Your task to perform on an android device: add a contact in the contacts app Image 0: 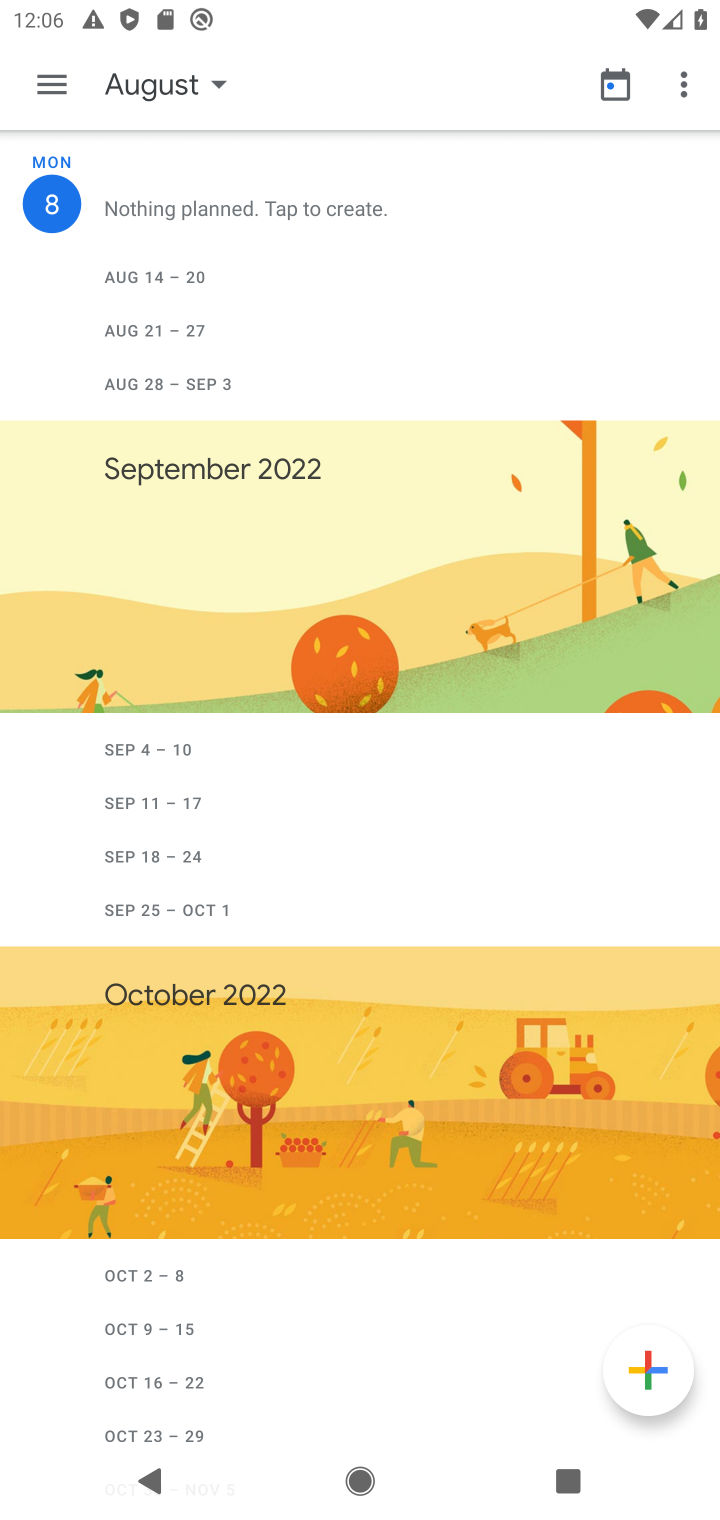
Step 0: press home button
Your task to perform on an android device: add a contact in the contacts app Image 1: 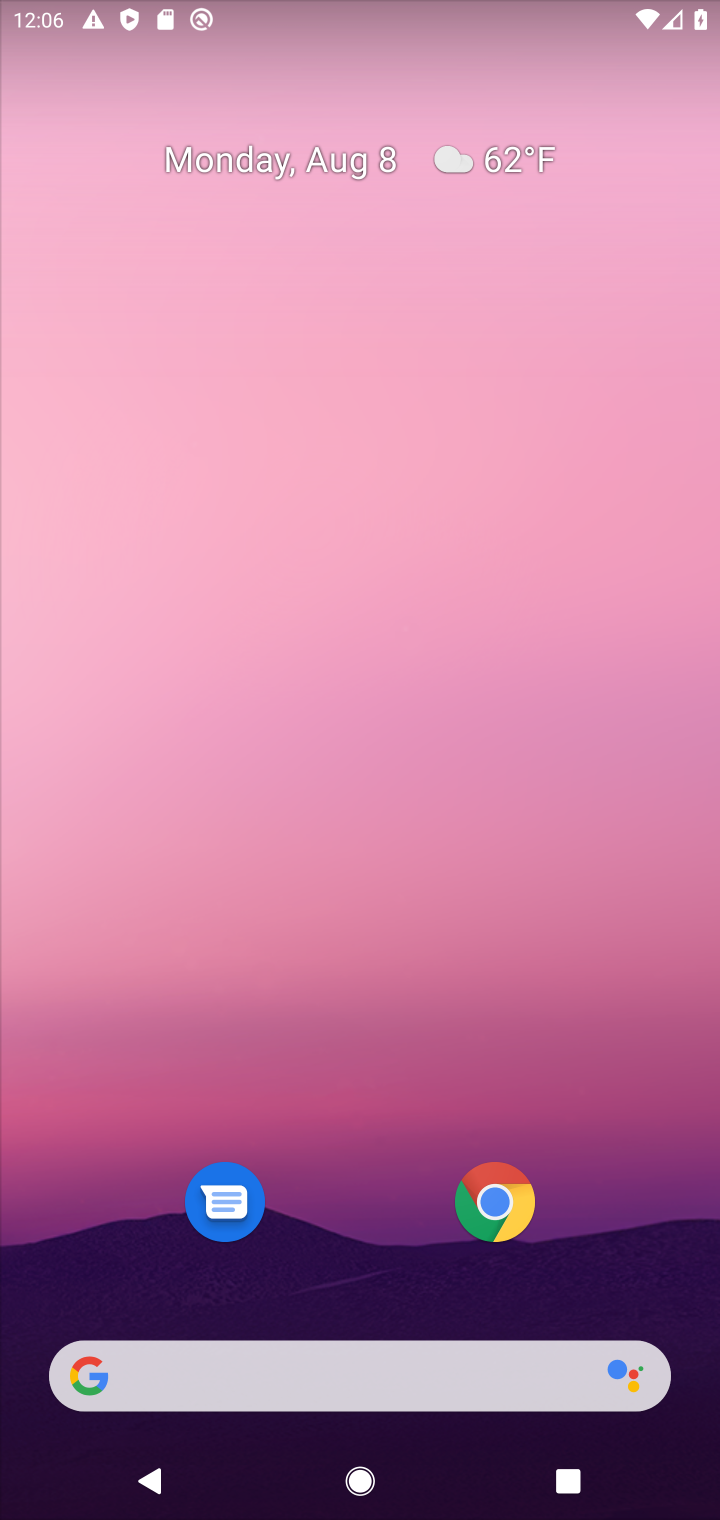
Step 1: click (354, 373)
Your task to perform on an android device: add a contact in the contacts app Image 2: 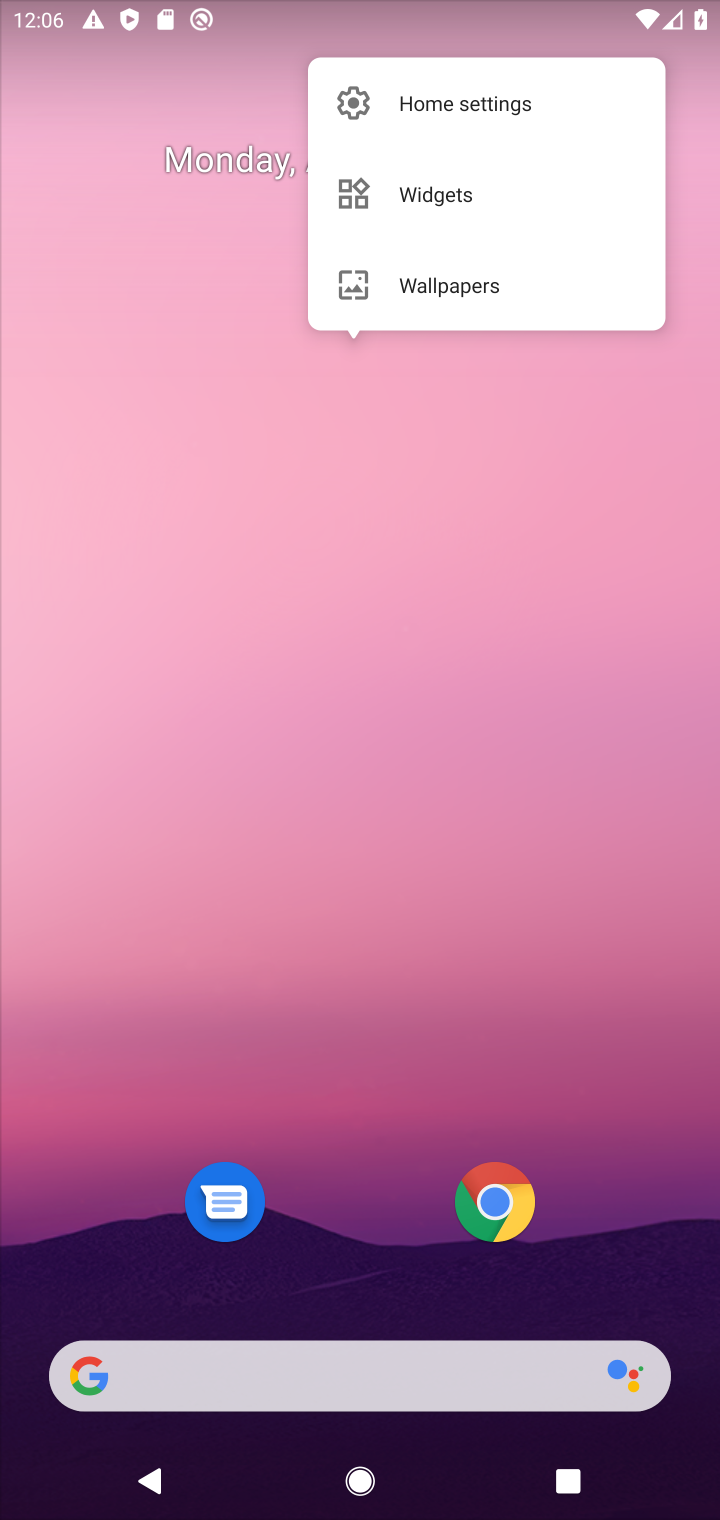
Step 2: click (393, 1305)
Your task to perform on an android device: add a contact in the contacts app Image 3: 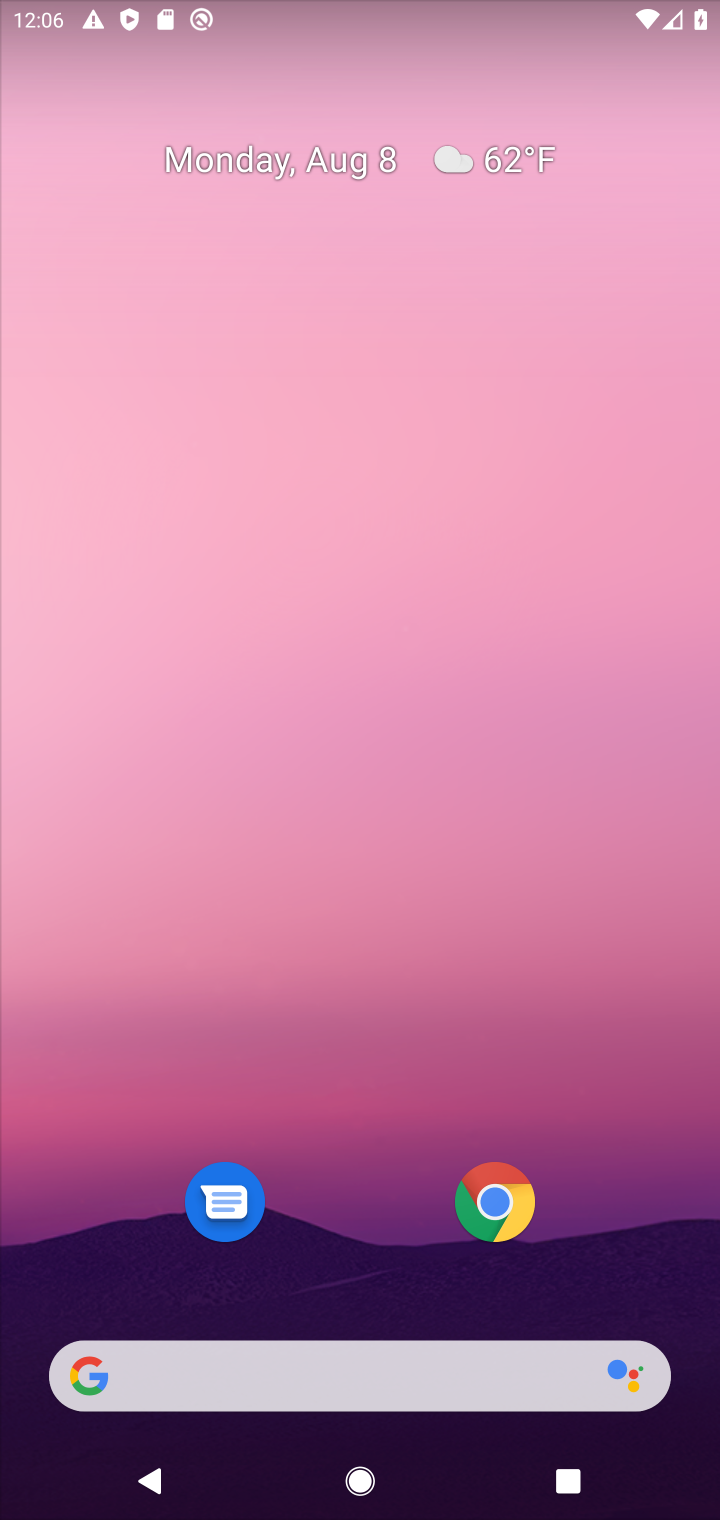
Step 3: drag from (381, 1235) to (344, 815)
Your task to perform on an android device: add a contact in the contacts app Image 4: 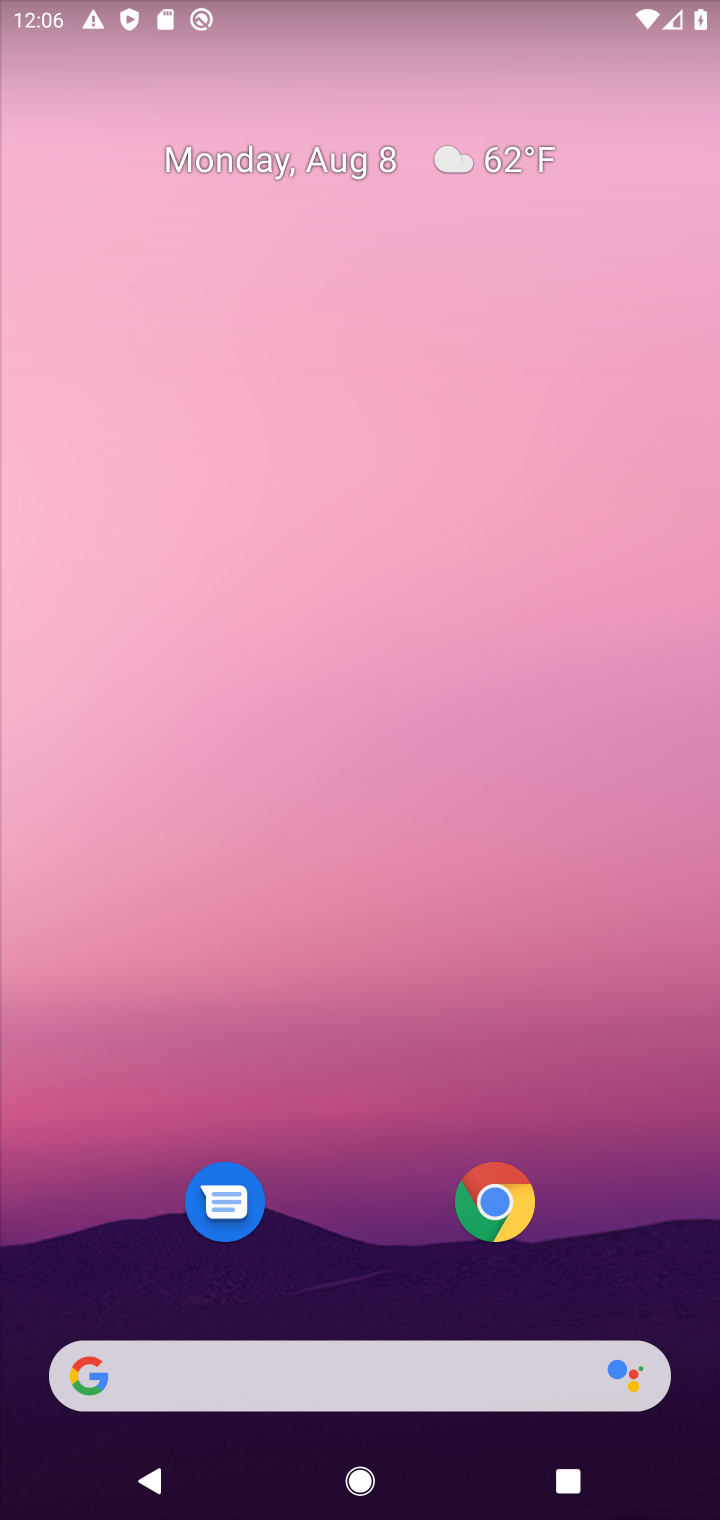
Step 4: drag from (312, 373) to (217, 144)
Your task to perform on an android device: add a contact in the contacts app Image 5: 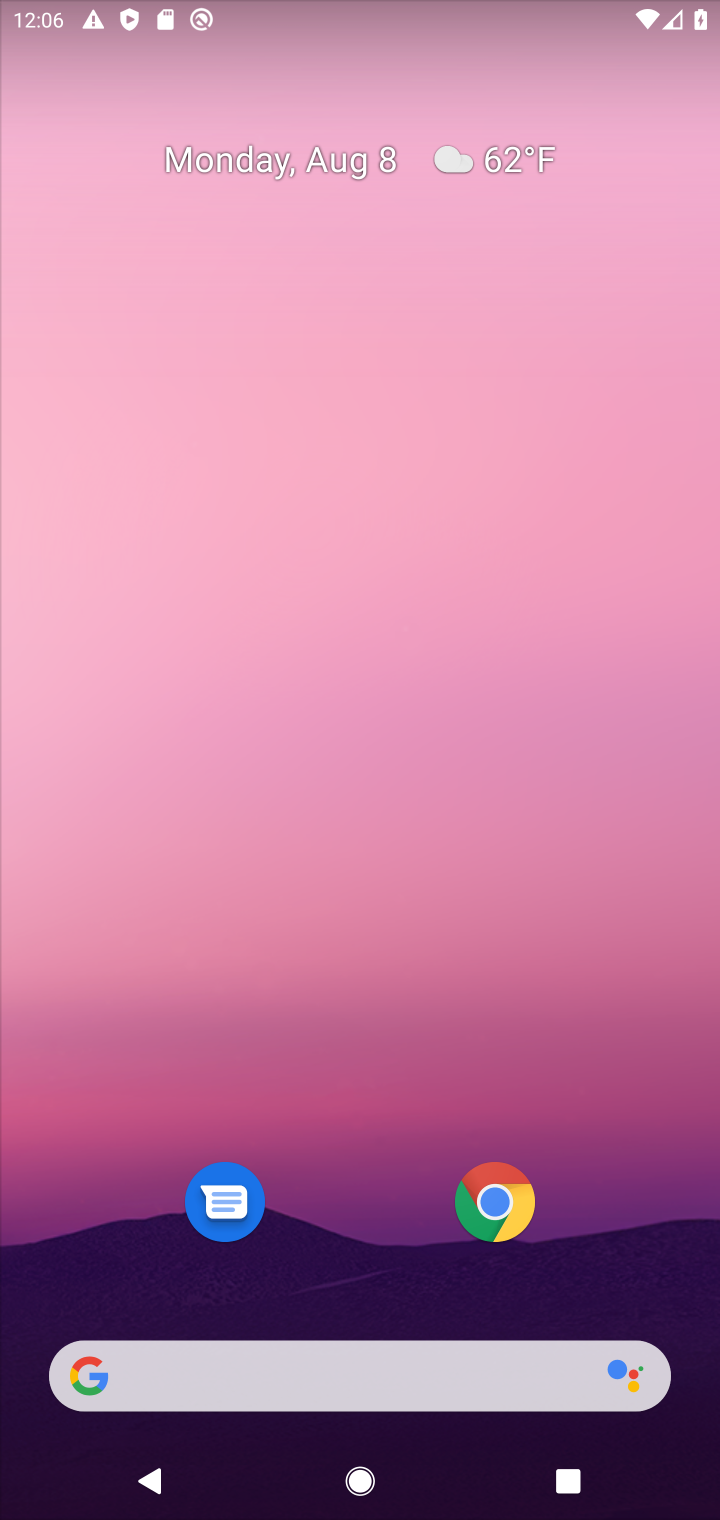
Step 5: drag from (327, 1048) to (126, 98)
Your task to perform on an android device: add a contact in the contacts app Image 6: 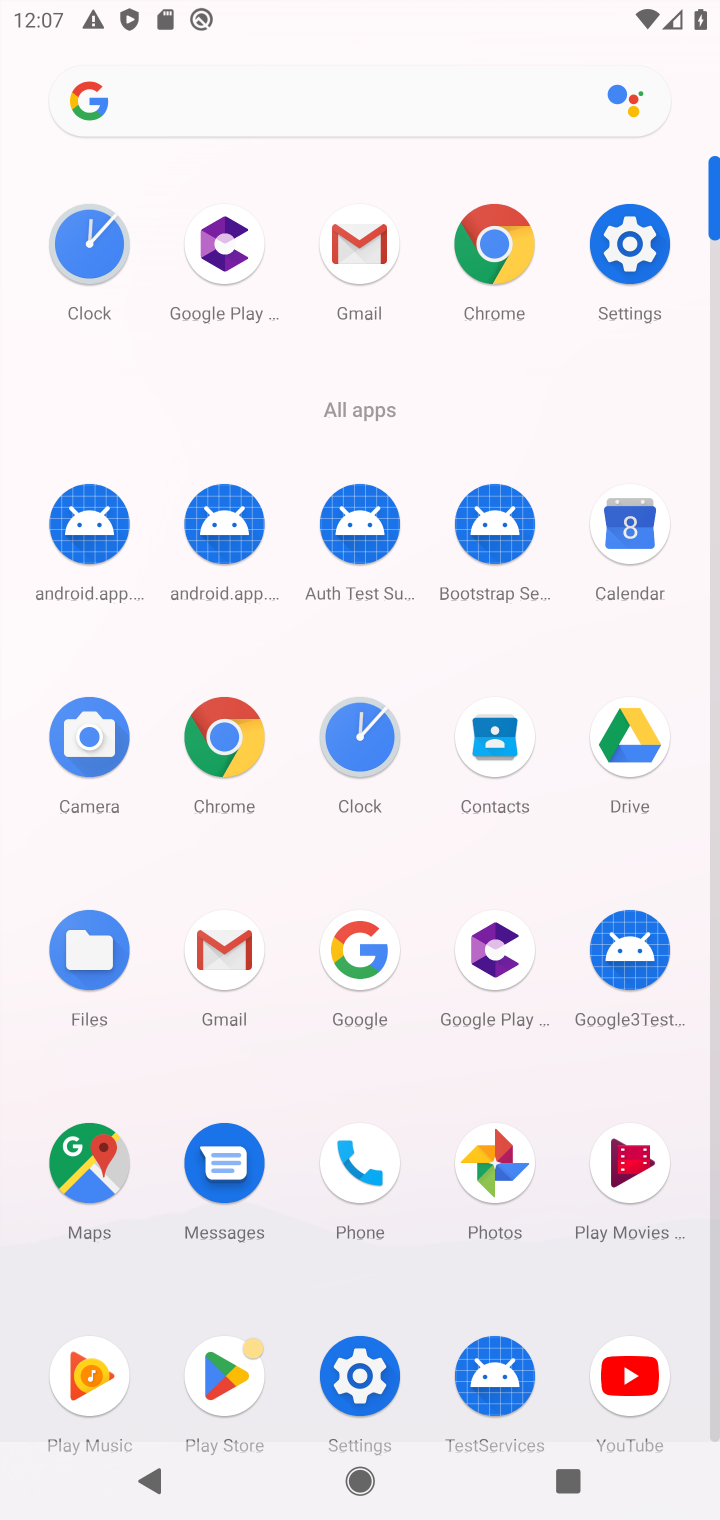
Step 6: click (496, 755)
Your task to perform on an android device: add a contact in the contacts app Image 7: 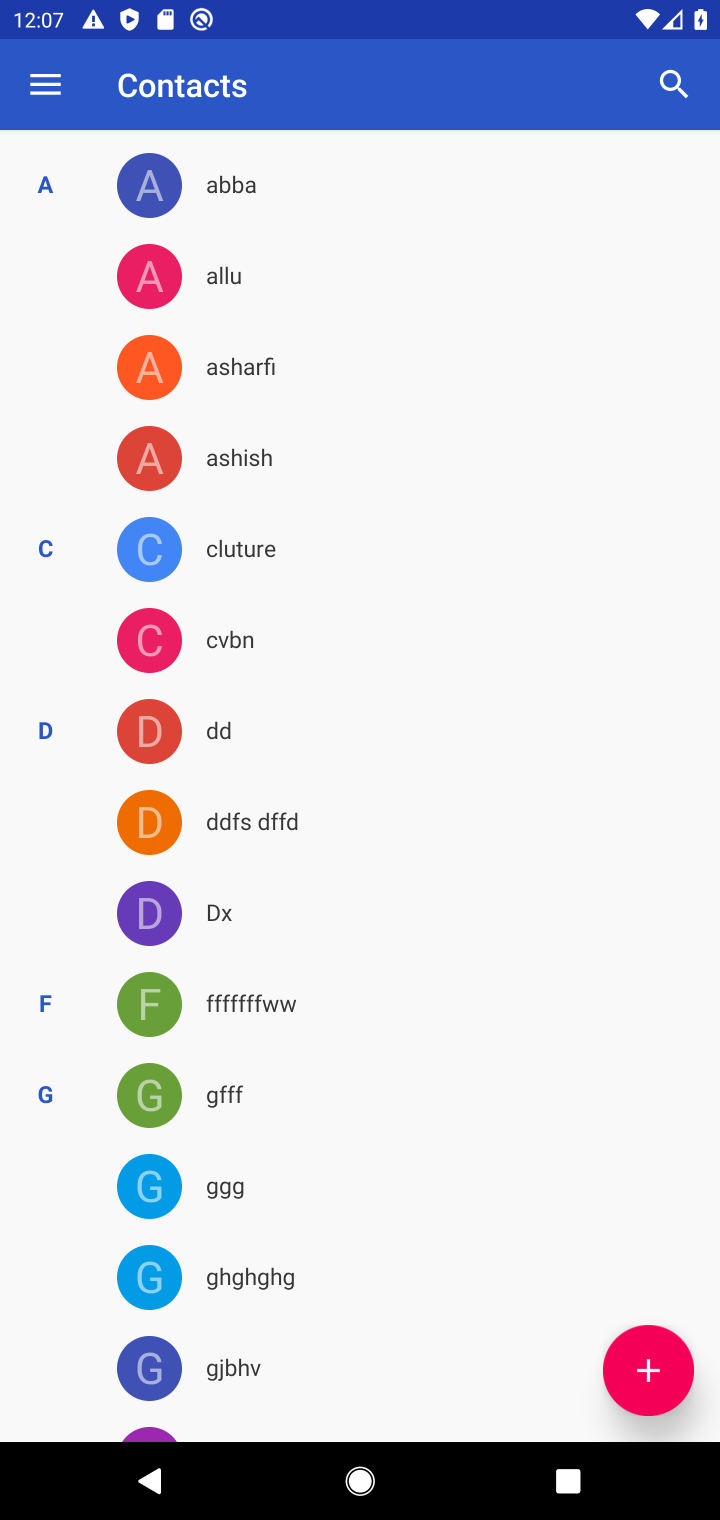
Step 7: click (629, 1377)
Your task to perform on an android device: add a contact in the contacts app Image 8: 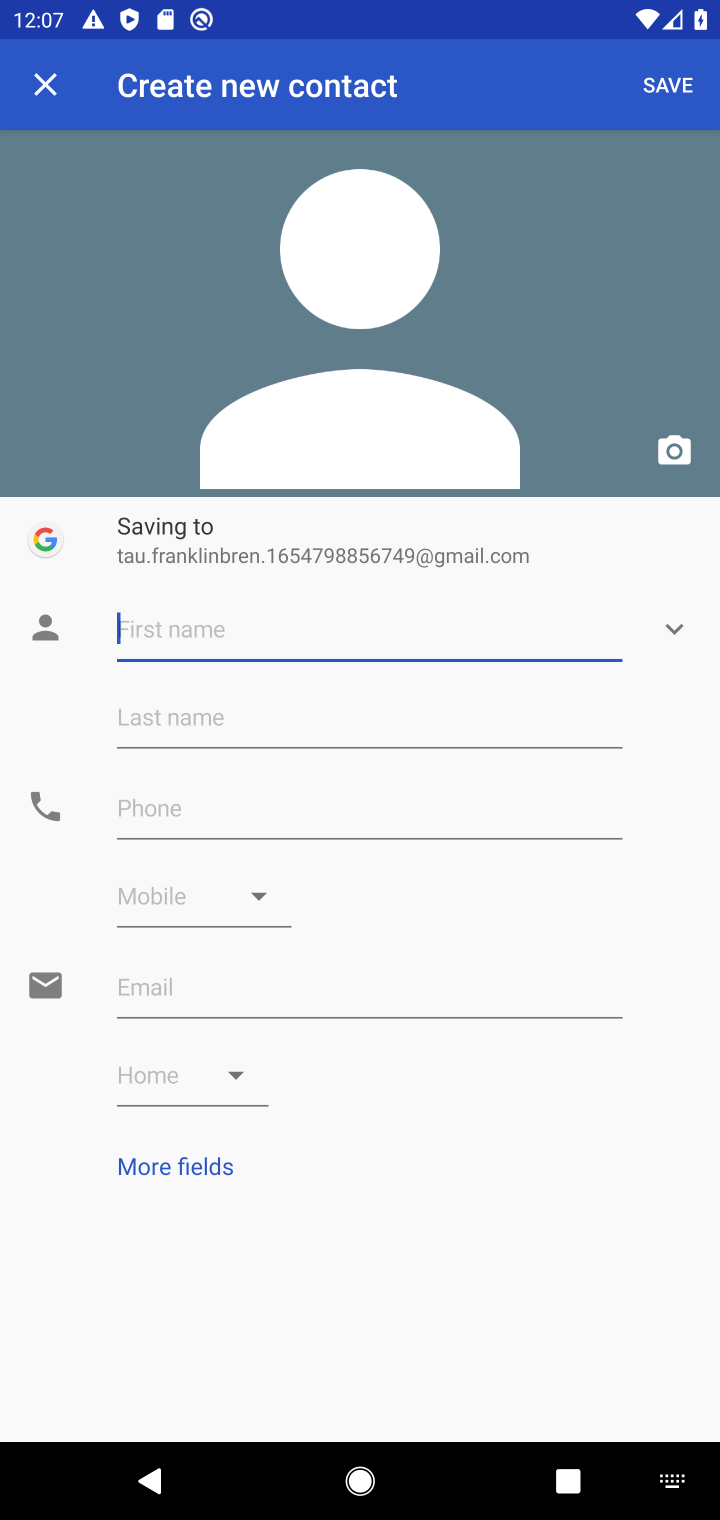
Step 8: type "Vinamra"
Your task to perform on an android device: add a contact in the contacts app Image 9: 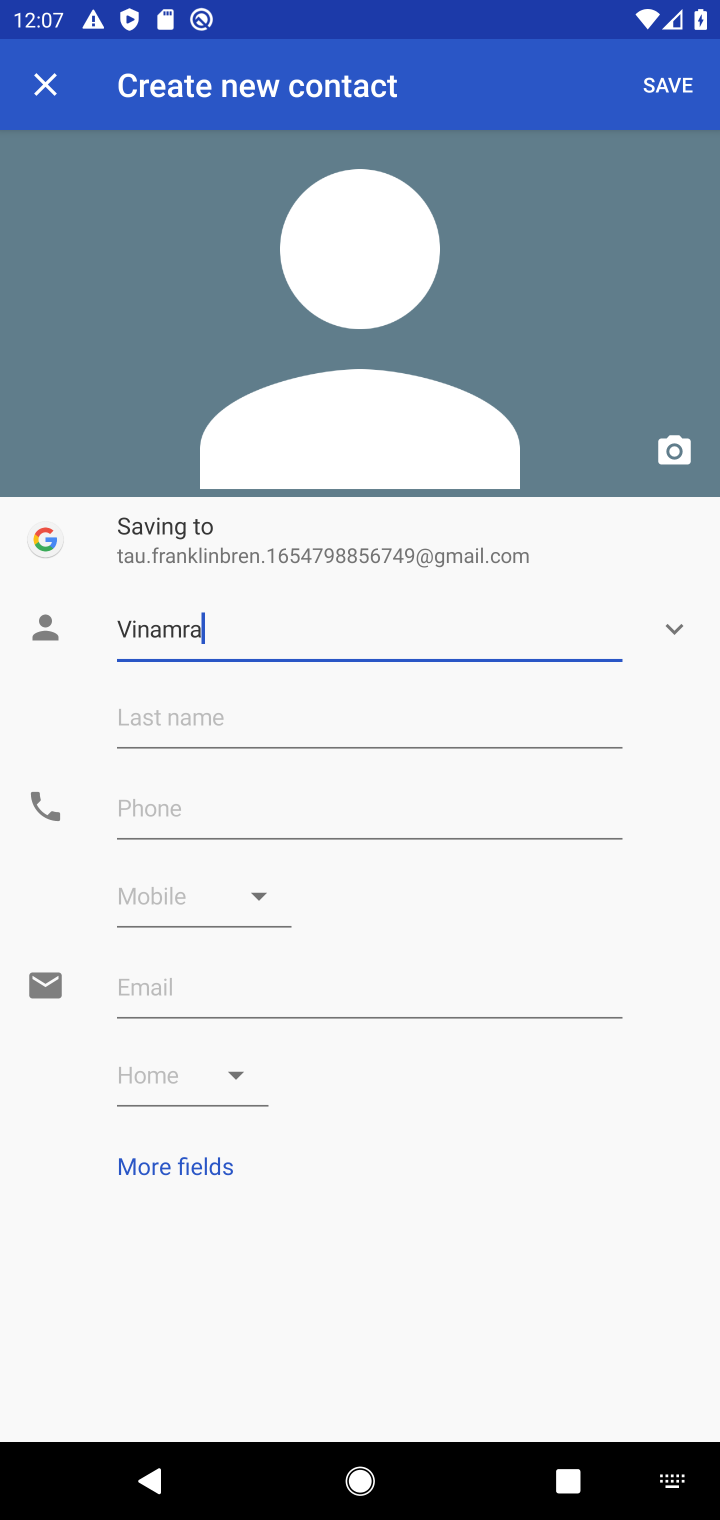
Step 9: click (524, 729)
Your task to perform on an android device: add a contact in the contacts app Image 10: 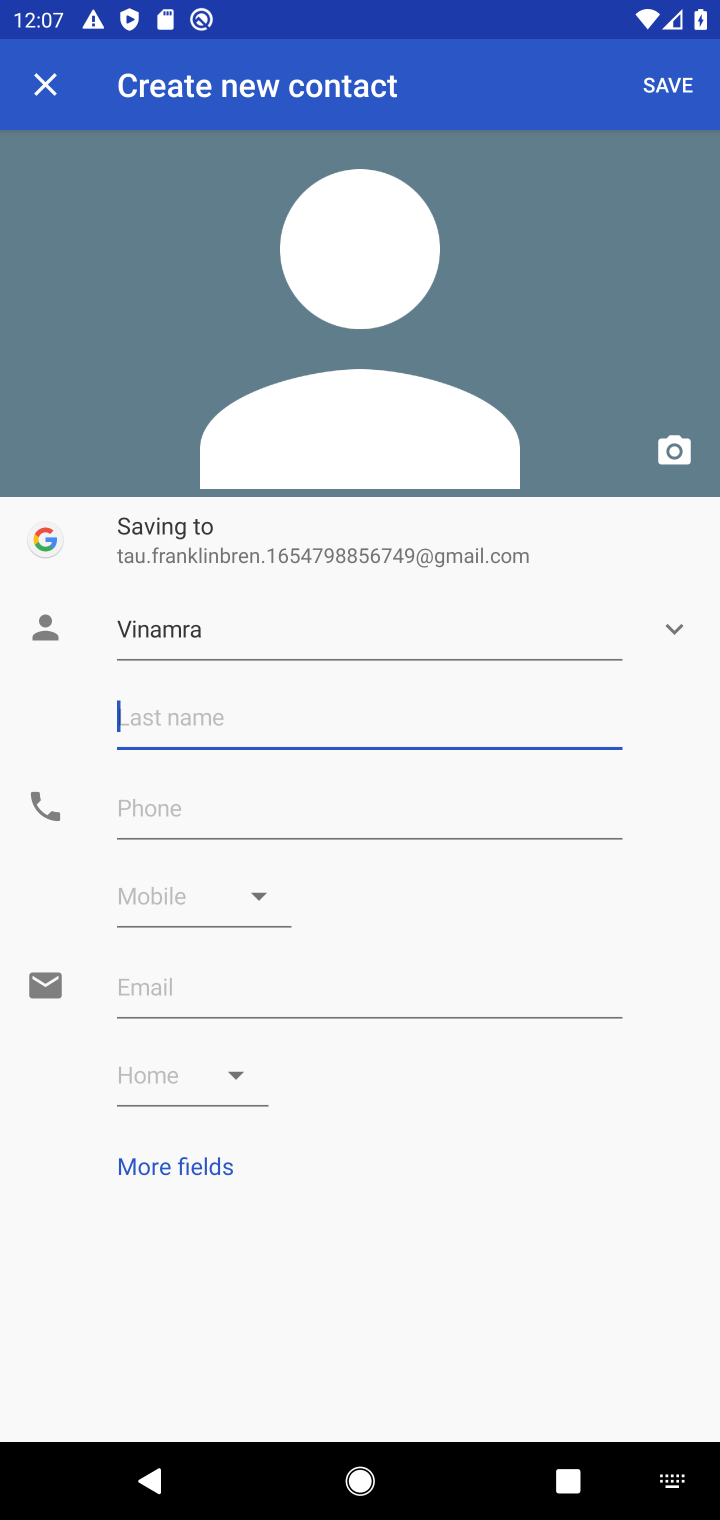
Step 10: type "Dangi"
Your task to perform on an android device: add a contact in the contacts app Image 11: 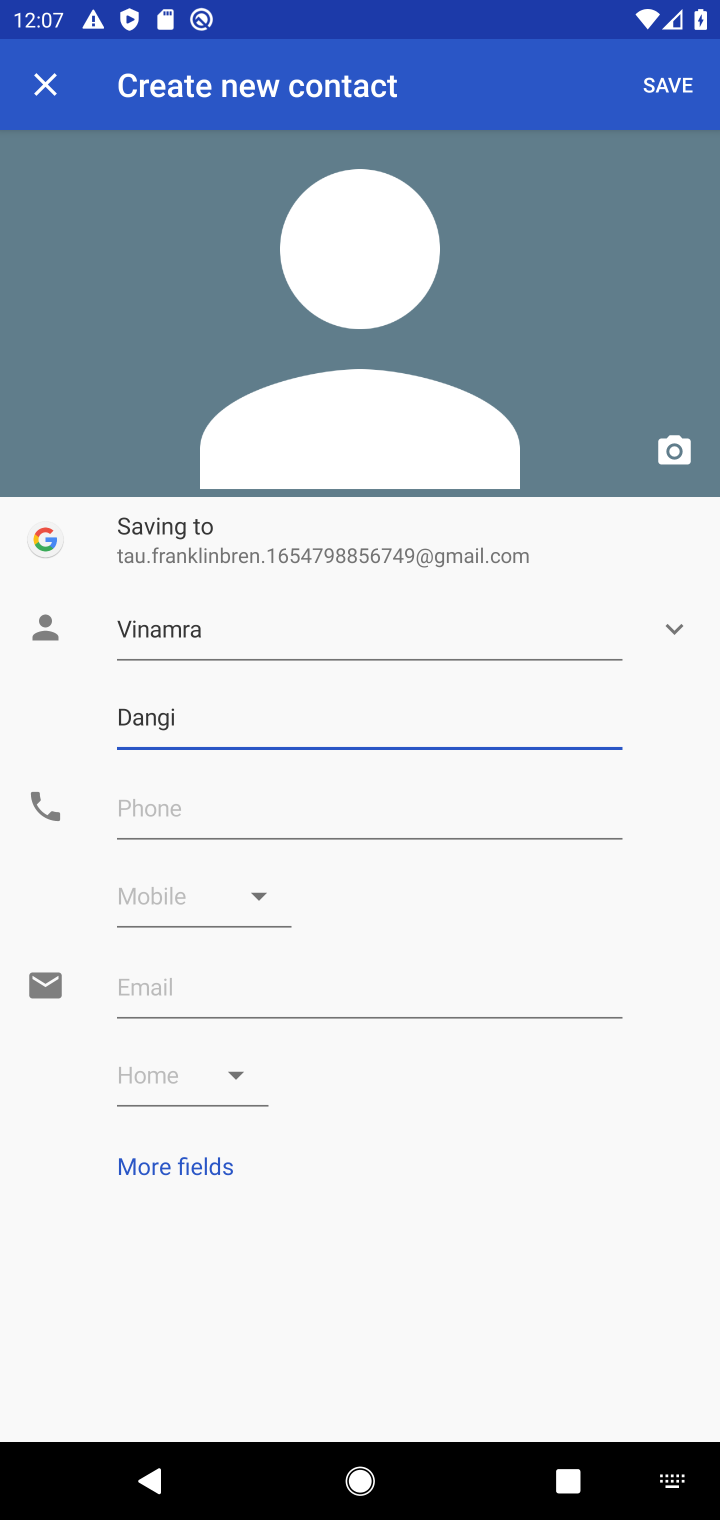
Step 11: click (442, 818)
Your task to perform on an android device: add a contact in the contacts app Image 12: 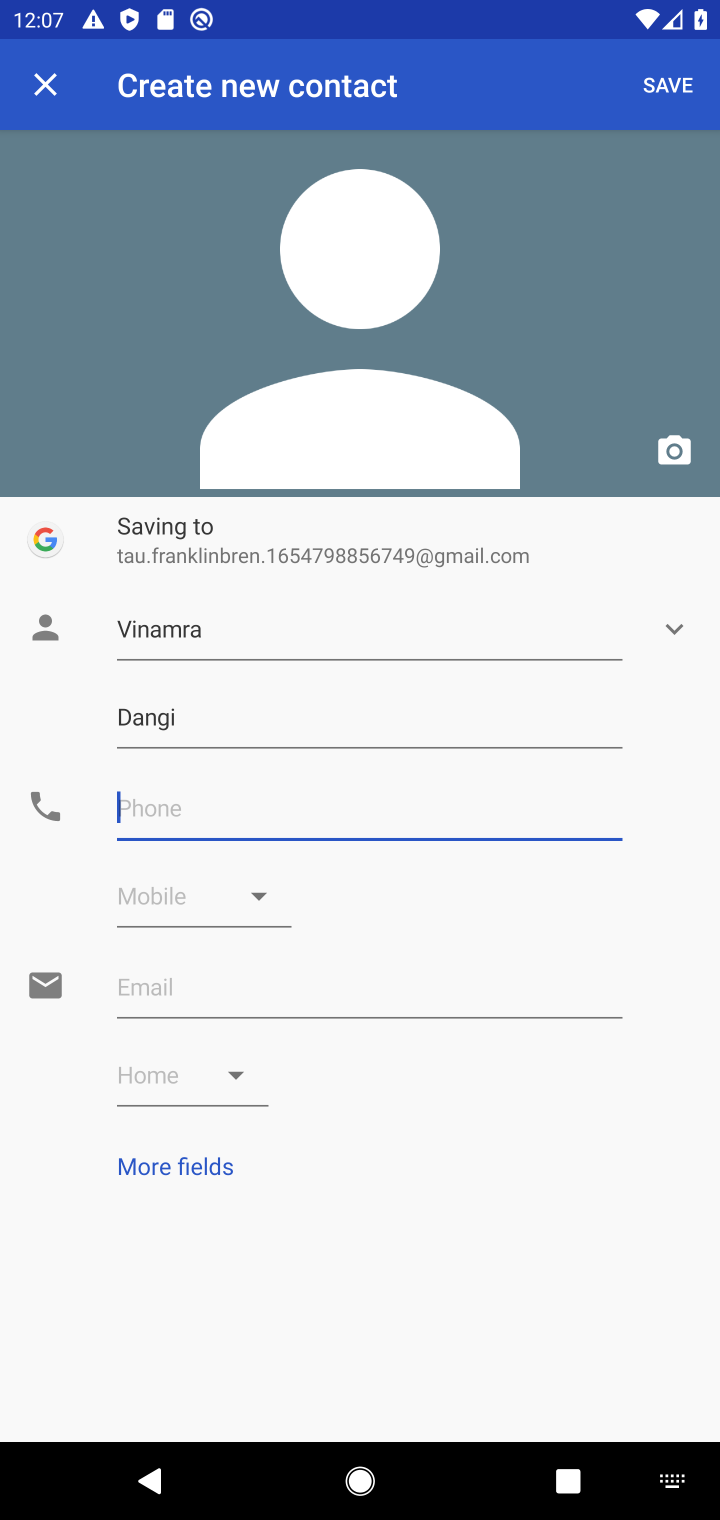
Step 12: type "5678987600"
Your task to perform on an android device: add a contact in the contacts app Image 13: 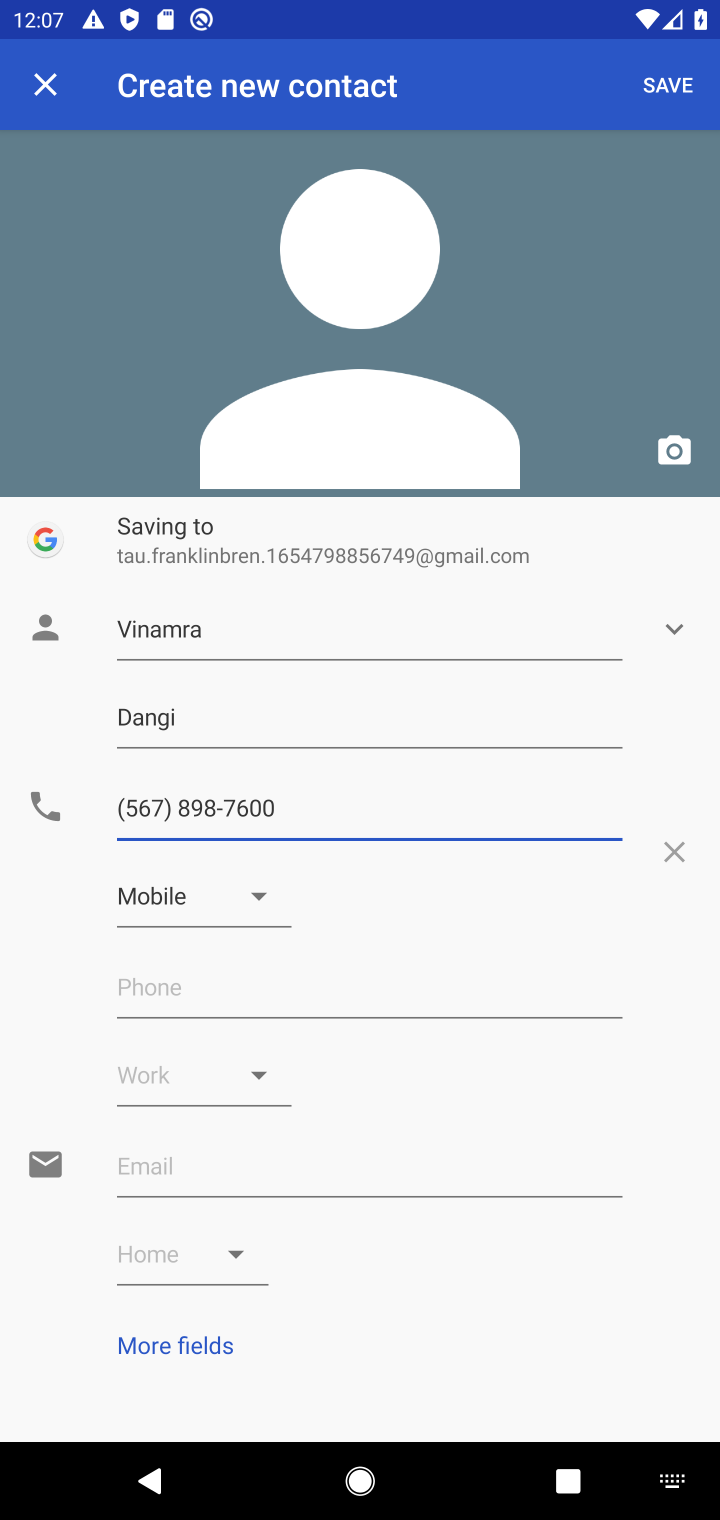
Step 13: click (683, 84)
Your task to perform on an android device: add a contact in the contacts app Image 14: 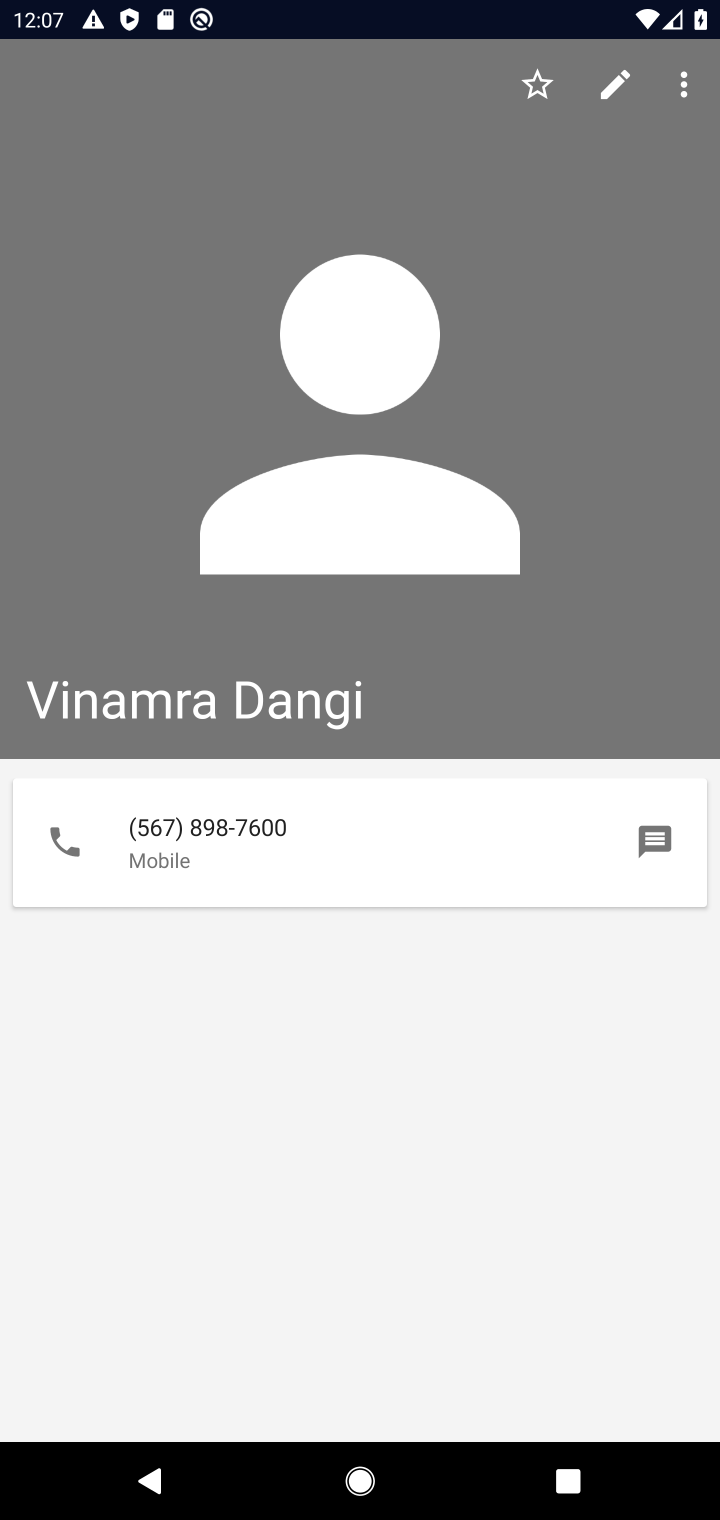
Step 14: task complete